Your task to perform on an android device: Open accessibility settings Image 0: 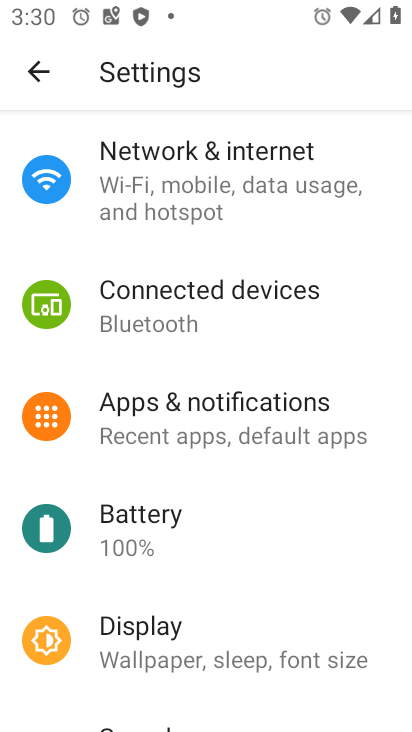
Step 0: drag from (226, 561) to (248, 142)
Your task to perform on an android device: Open accessibility settings Image 1: 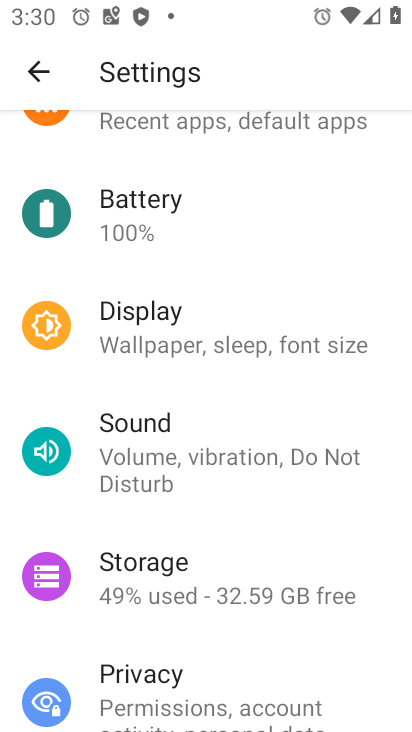
Step 1: drag from (262, 636) to (280, 150)
Your task to perform on an android device: Open accessibility settings Image 2: 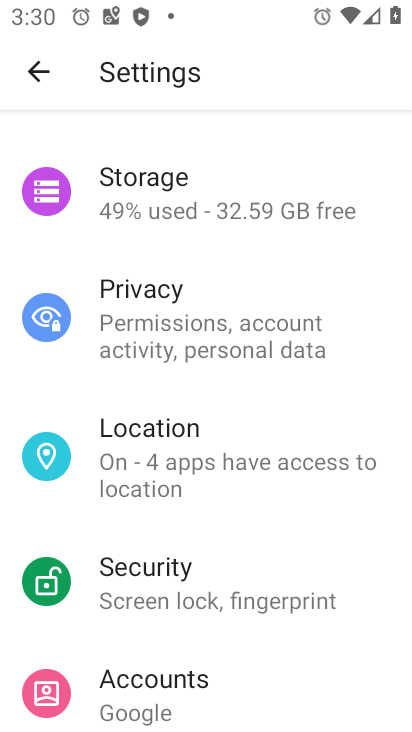
Step 2: drag from (226, 569) to (250, 163)
Your task to perform on an android device: Open accessibility settings Image 3: 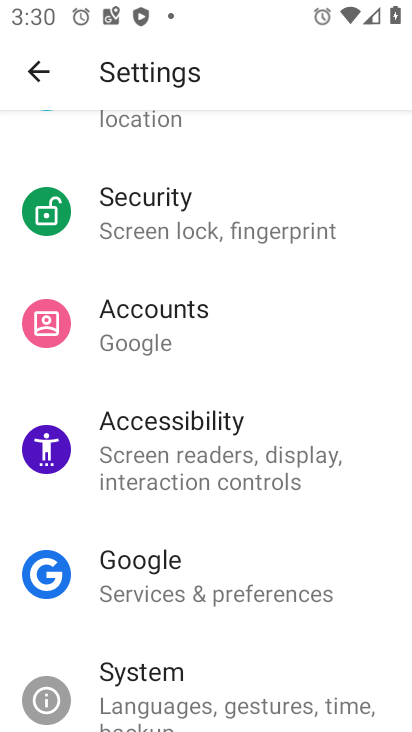
Step 3: click (197, 459)
Your task to perform on an android device: Open accessibility settings Image 4: 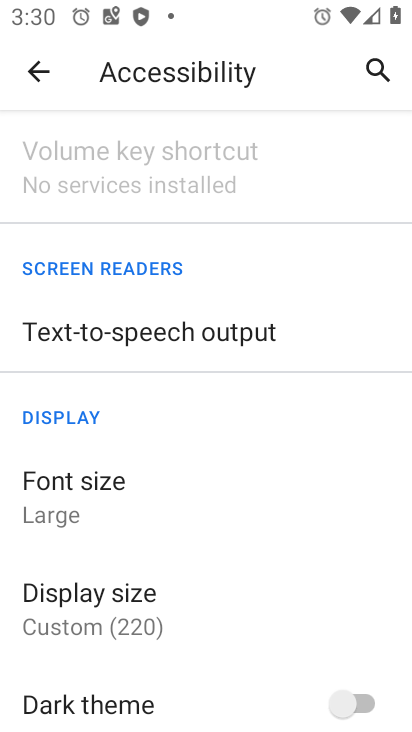
Step 4: task complete